Your task to perform on an android device: What's the weather going to be this weekend? Image 0: 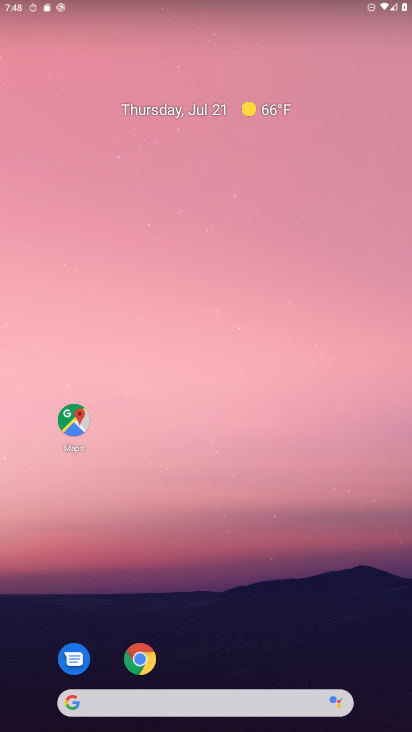
Step 0: drag from (166, 683) to (197, 121)
Your task to perform on an android device: What's the weather going to be this weekend? Image 1: 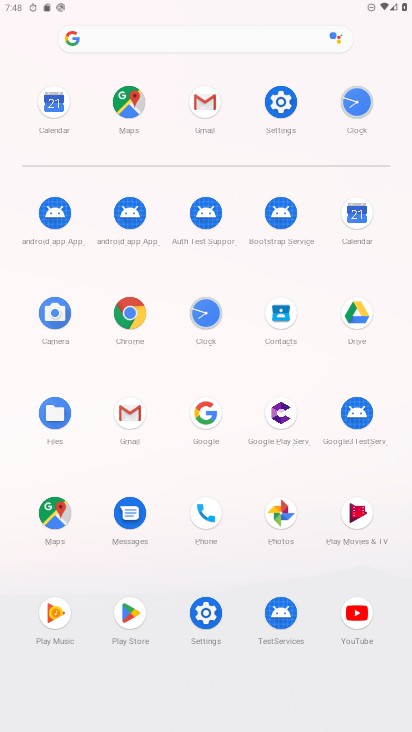
Step 1: click (130, 36)
Your task to perform on an android device: What's the weather going to be this weekend? Image 2: 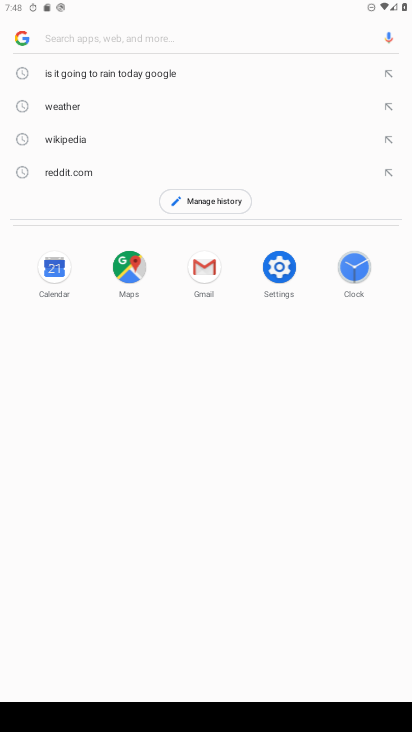
Step 2: type "What's the weather going to be this weekend?"
Your task to perform on an android device: What's the weather going to be this weekend? Image 3: 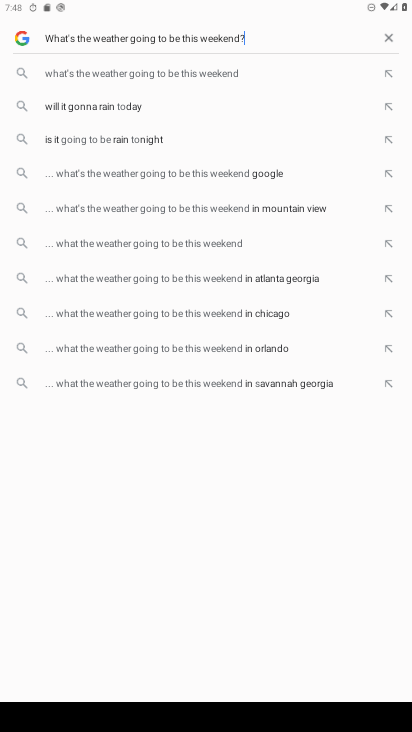
Step 3: click (165, 71)
Your task to perform on an android device: What's the weather going to be this weekend? Image 4: 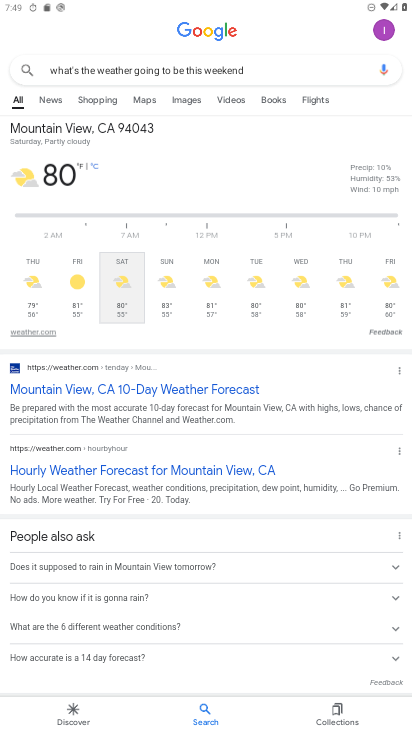
Step 4: task complete